Your task to perform on an android device: Go to notification settings Image 0: 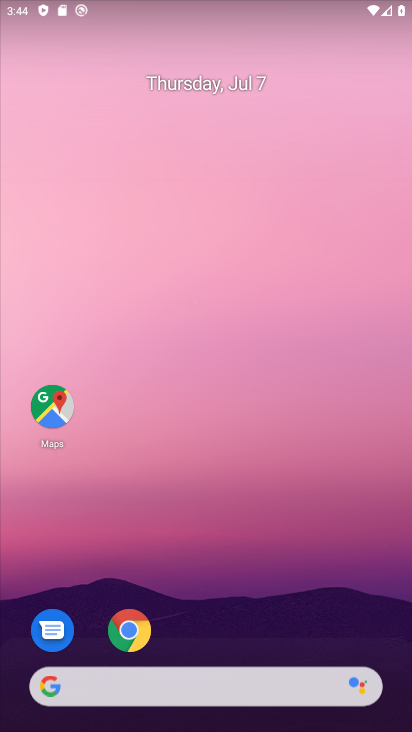
Step 0: drag from (264, 647) to (392, 34)
Your task to perform on an android device: Go to notification settings Image 1: 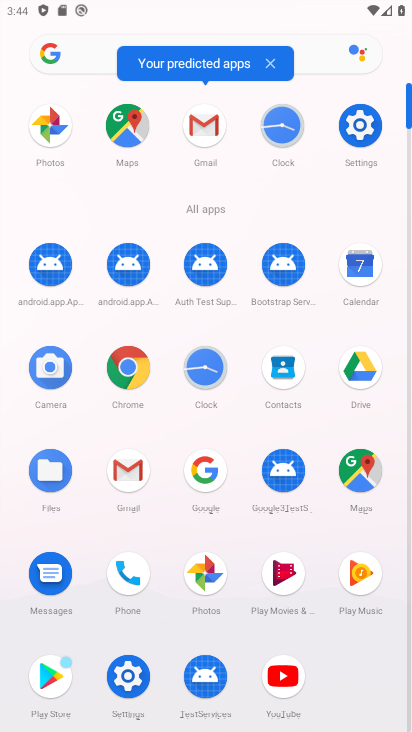
Step 1: click (124, 681)
Your task to perform on an android device: Go to notification settings Image 2: 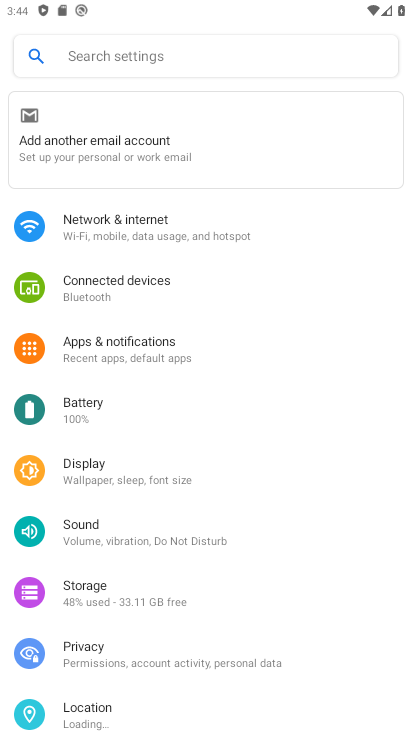
Step 2: click (177, 366)
Your task to perform on an android device: Go to notification settings Image 3: 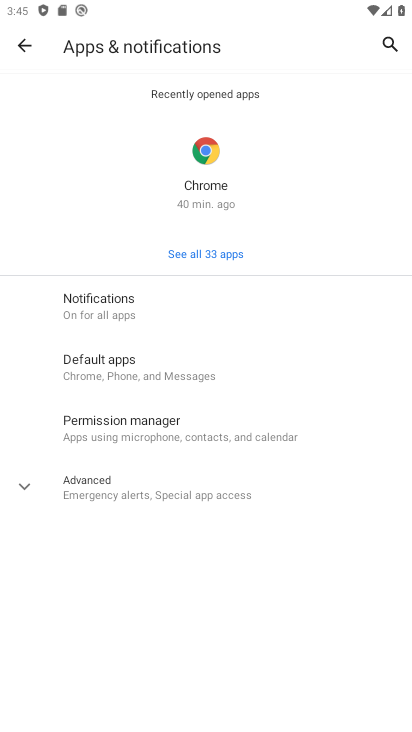
Step 3: click (174, 497)
Your task to perform on an android device: Go to notification settings Image 4: 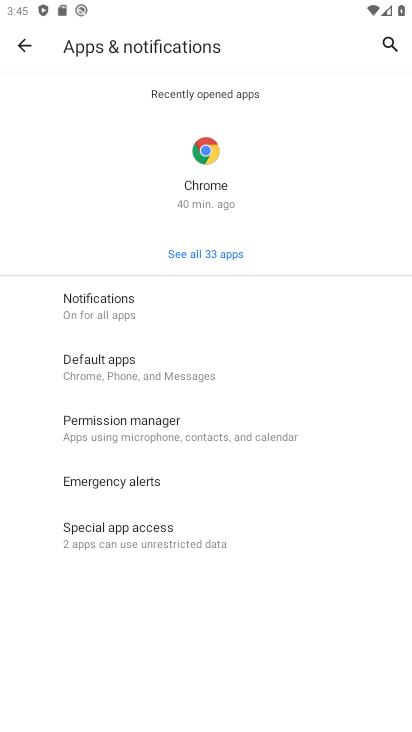
Step 4: click (168, 311)
Your task to perform on an android device: Go to notification settings Image 5: 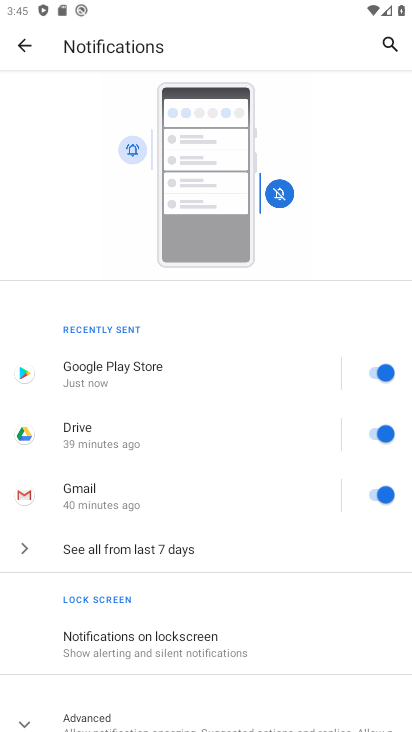
Step 5: task complete